Your task to perform on an android device: Open Youtube and go to "Your channel" Image 0: 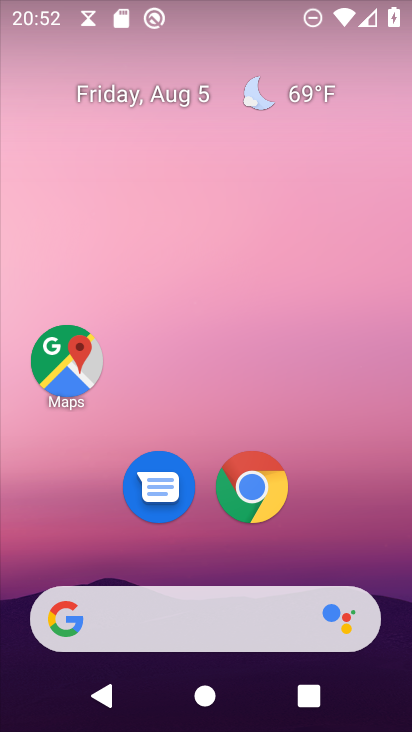
Step 0: drag from (174, 624) to (290, 72)
Your task to perform on an android device: Open Youtube and go to "Your channel" Image 1: 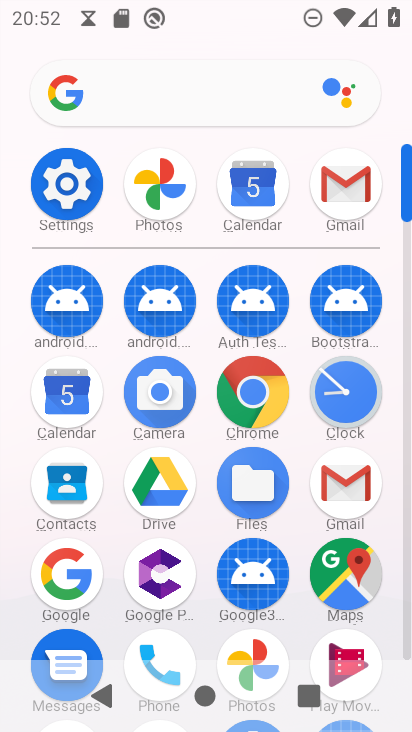
Step 1: drag from (296, 526) to (336, 105)
Your task to perform on an android device: Open Youtube and go to "Your channel" Image 2: 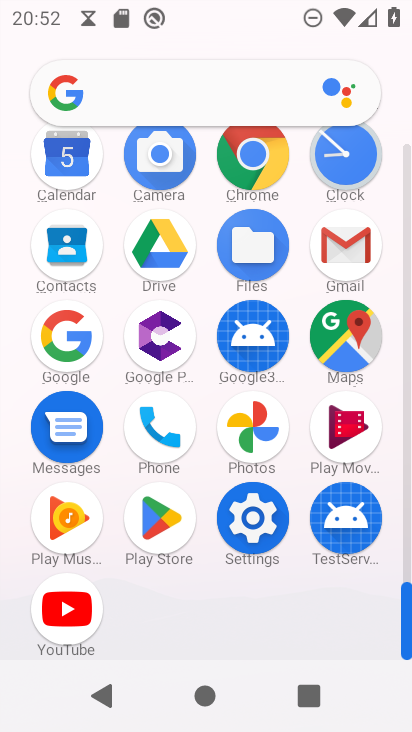
Step 2: click (73, 612)
Your task to perform on an android device: Open Youtube and go to "Your channel" Image 3: 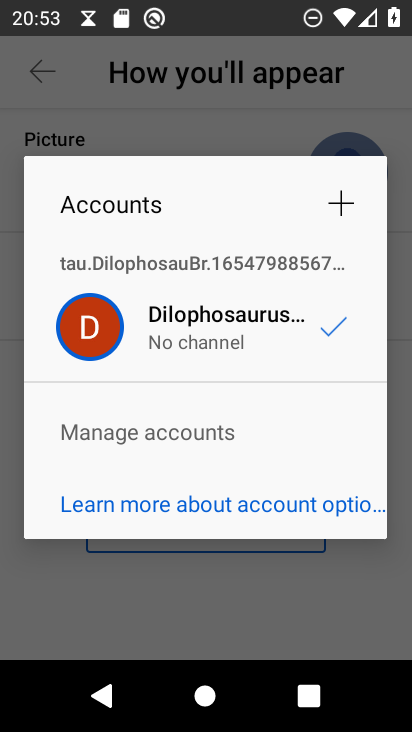
Step 3: task complete